Your task to perform on an android device: Open Wikipedia Image 0: 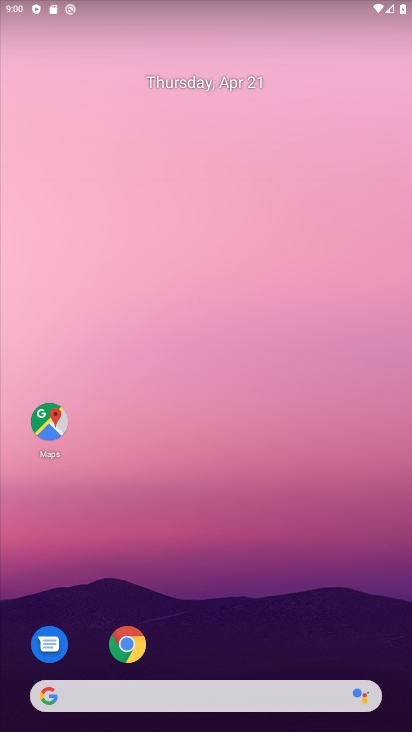
Step 0: drag from (211, 555) to (210, 195)
Your task to perform on an android device: Open Wikipedia Image 1: 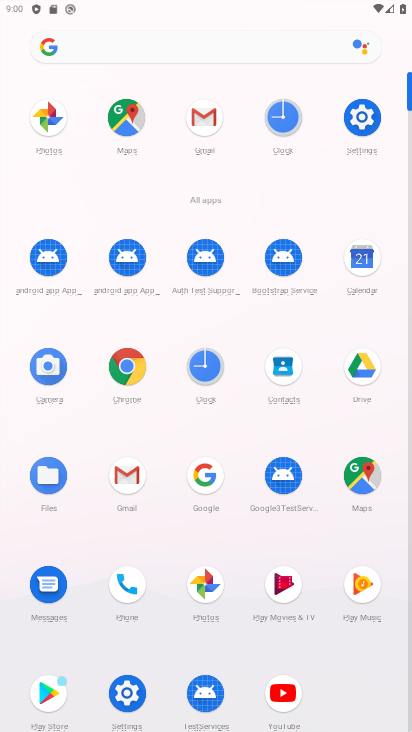
Step 1: click (125, 364)
Your task to perform on an android device: Open Wikipedia Image 2: 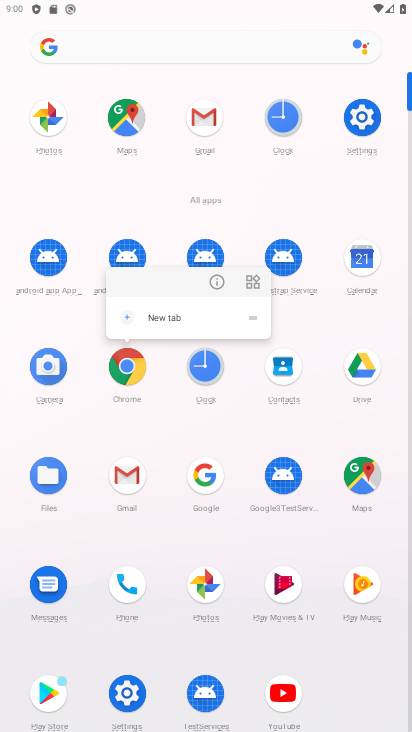
Step 2: click (170, 320)
Your task to perform on an android device: Open Wikipedia Image 3: 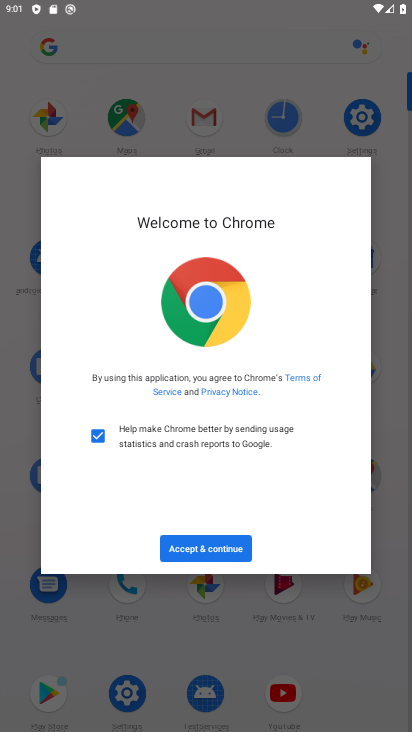
Step 3: click (213, 547)
Your task to perform on an android device: Open Wikipedia Image 4: 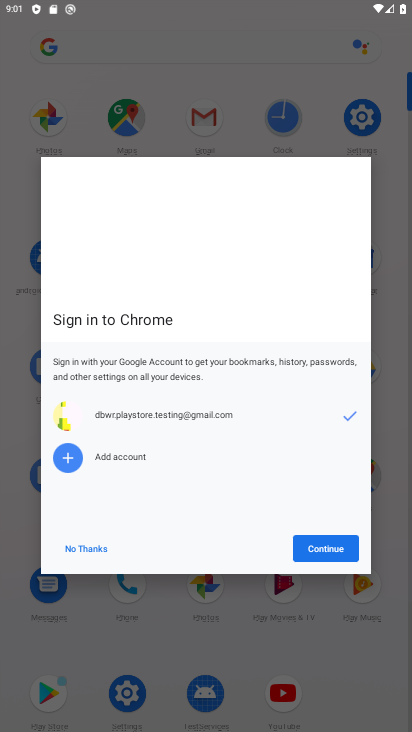
Step 4: click (324, 553)
Your task to perform on an android device: Open Wikipedia Image 5: 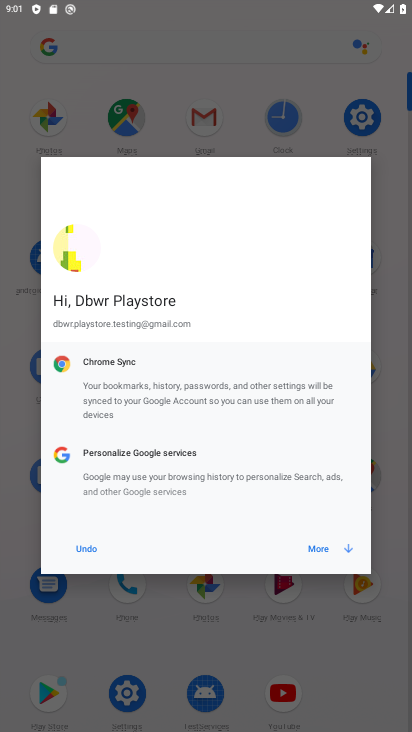
Step 5: click (319, 547)
Your task to perform on an android device: Open Wikipedia Image 6: 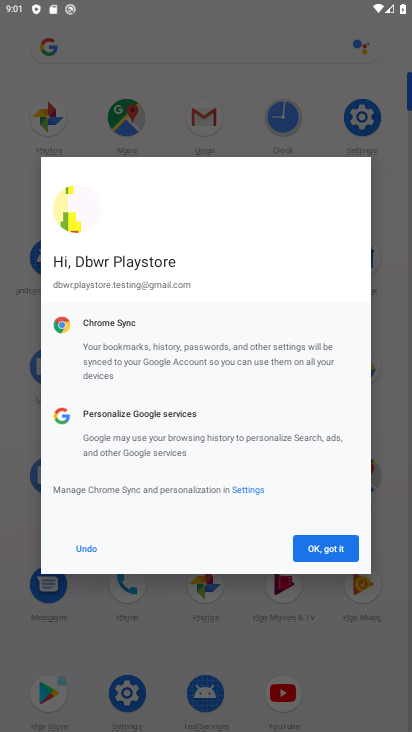
Step 6: click (315, 544)
Your task to perform on an android device: Open Wikipedia Image 7: 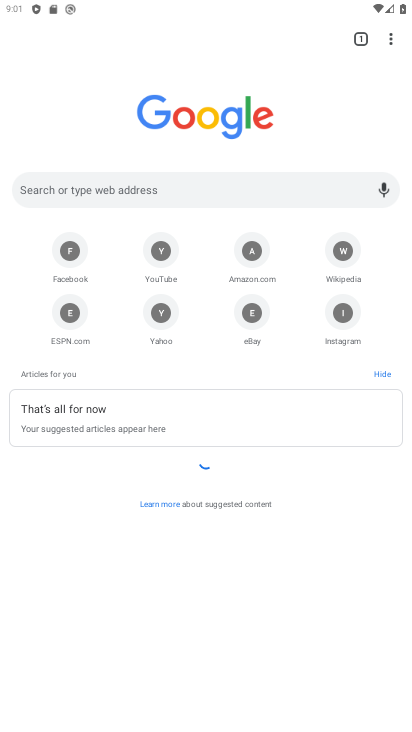
Step 7: click (105, 44)
Your task to perform on an android device: Open Wikipedia Image 8: 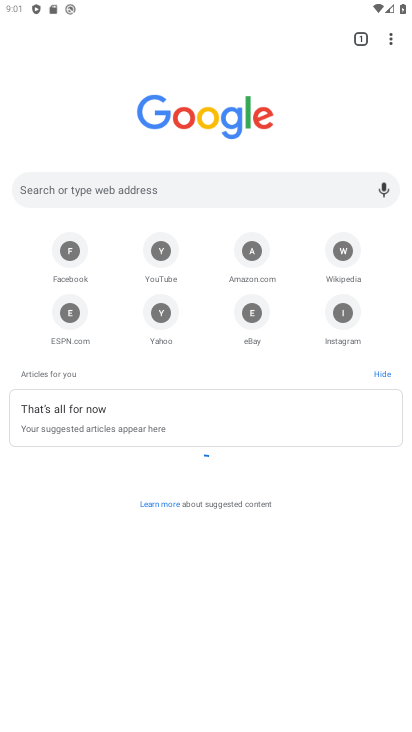
Step 8: click (66, 202)
Your task to perform on an android device: Open Wikipedia Image 9: 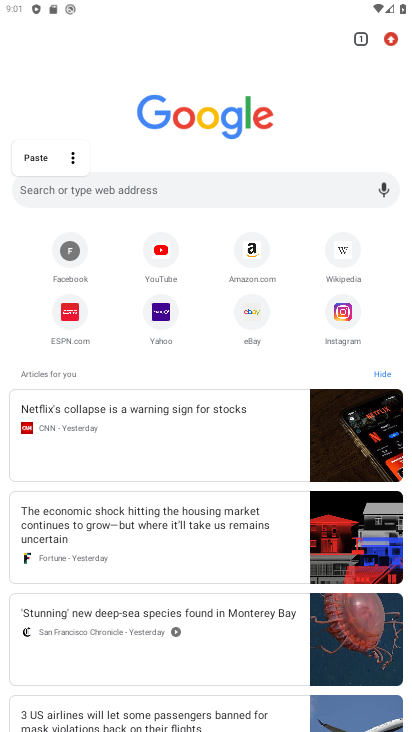
Step 9: type "wikipedia"
Your task to perform on an android device: Open Wikipedia Image 10: 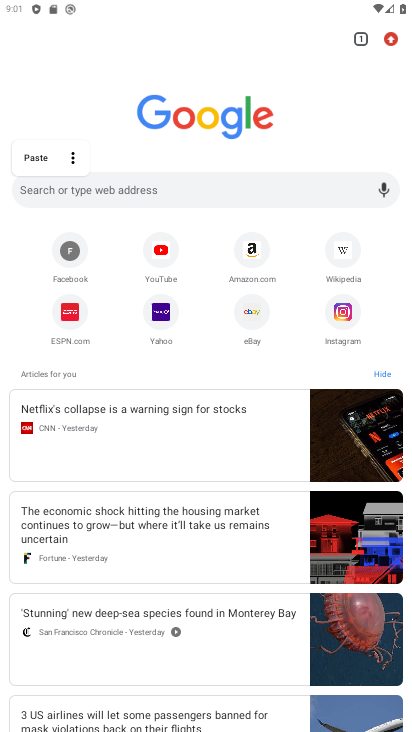
Step 10: click (76, 196)
Your task to perform on an android device: Open Wikipedia Image 11: 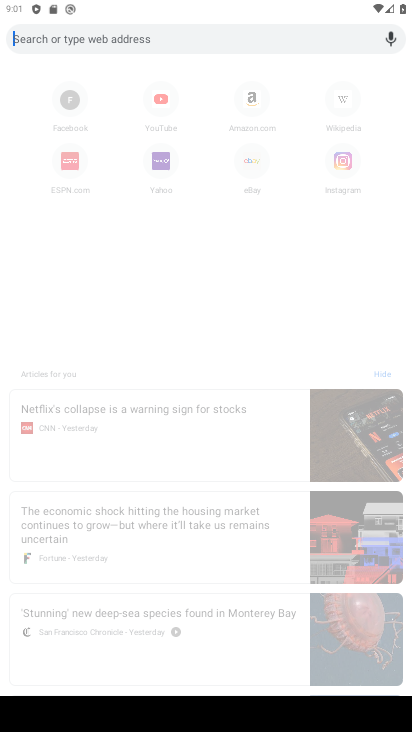
Step 11: type "wikipedia"
Your task to perform on an android device: Open Wikipedia Image 12: 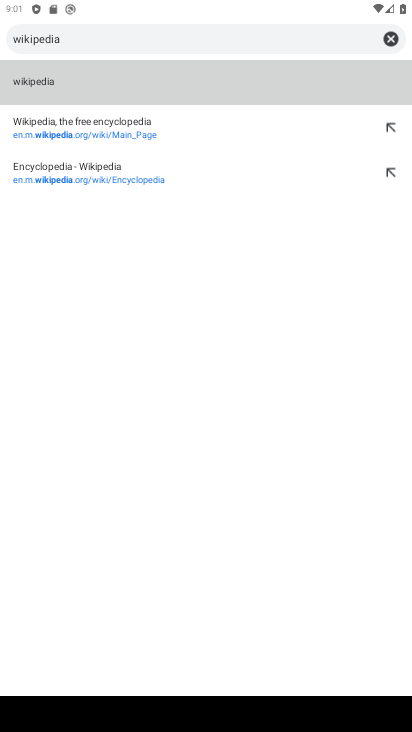
Step 12: click (81, 110)
Your task to perform on an android device: Open Wikipedia Image 13: 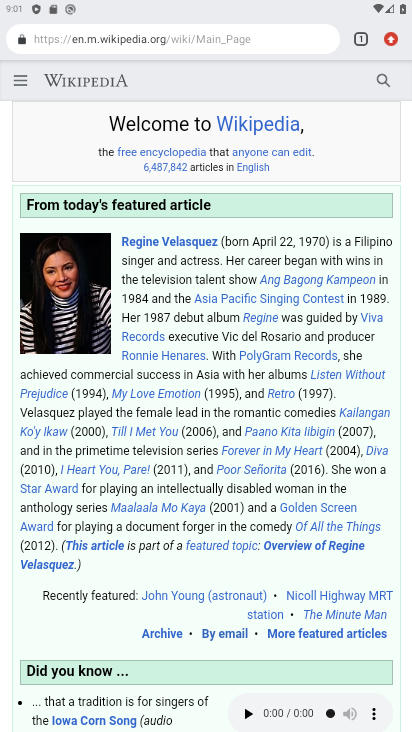
Step 13: task complete